Your task to perform on an android device: Open calendar and show me the first week of next month Image 0: 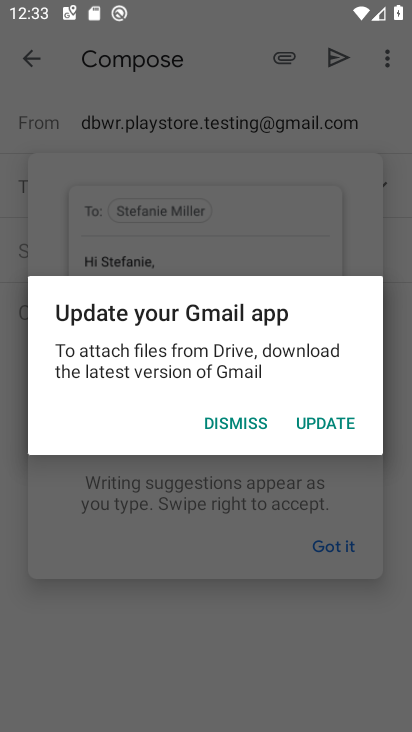
Step 0: press home button
Your task to perform on an android device: Open calendar and show me the first week of next month Image 1: 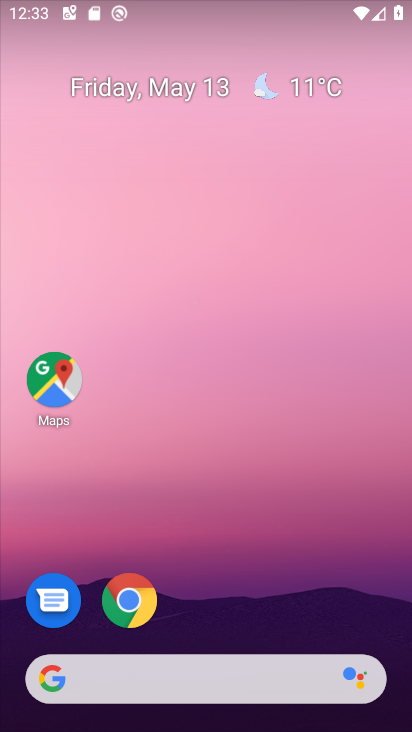
Step 1: drag from (207, 616) to (264, 4)
Your task to perform on an android device: Open calendar and show me the first week of next month Image 2: 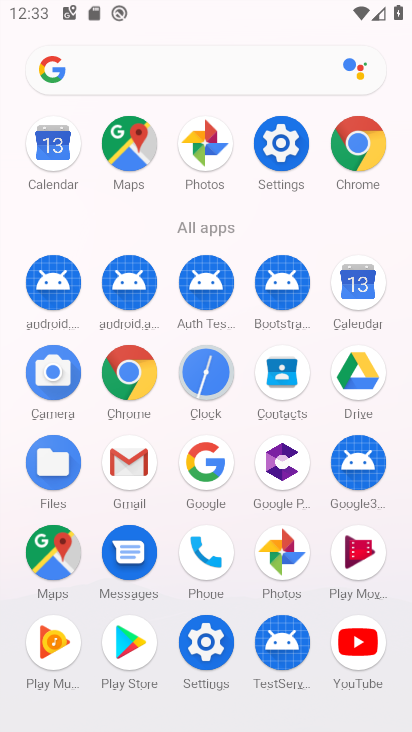
Step 2: click (351, 292)
Your task to perform on an android device: Open calendar and show me the first week of next month Image 3: 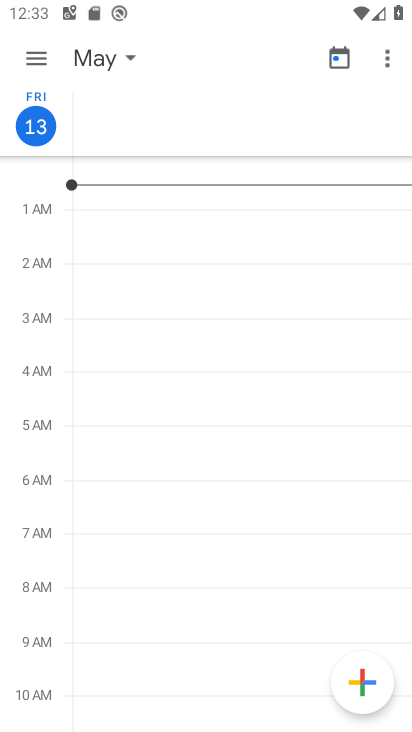
Step 3: click (131, 53)
Your task to perform on an android device: Open calendar and show me the first week of next month Image 4: 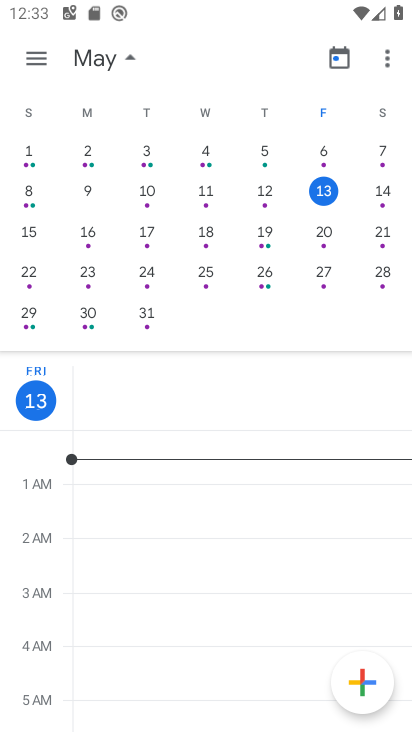
Step 4: drag from (388, 227) to (0, 93)
Your task to perform on an android device: Open calendar and show me the first week of next month Image 5: 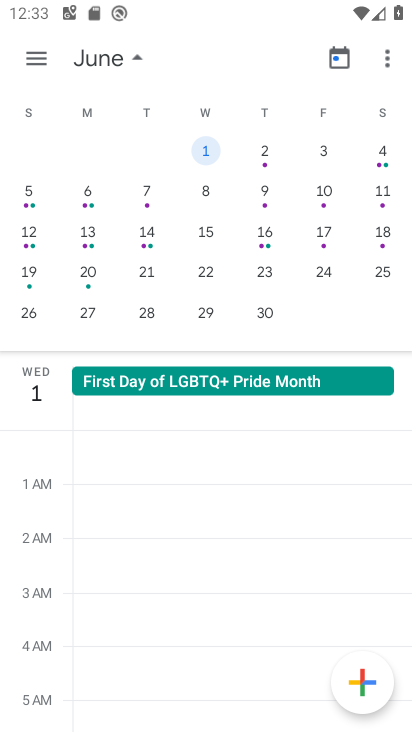
Step 5: click (23, 64)
Your task to perform on an android device: Open calendar and show me the first week of next month Image 6: 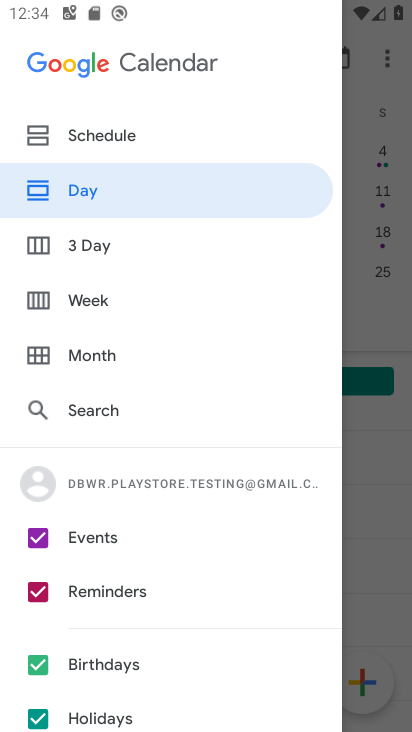
Step 6: click (108, 312)
Your task to perform on an android device: Open calendar and show me the first week of next month Image 7: 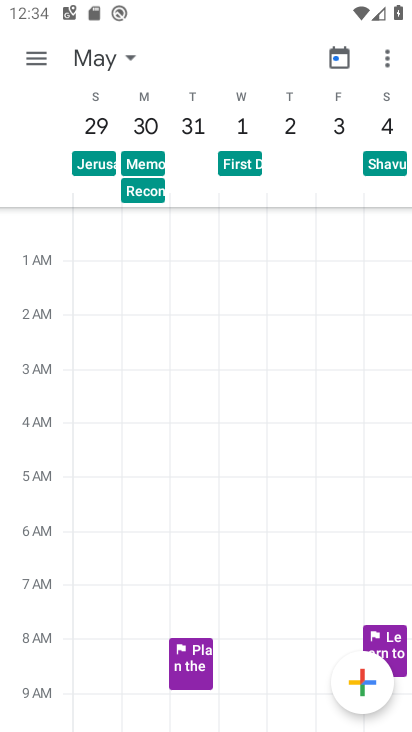
Step 7: task complete